Your task to perform on an android device: Open network settings Image 0: 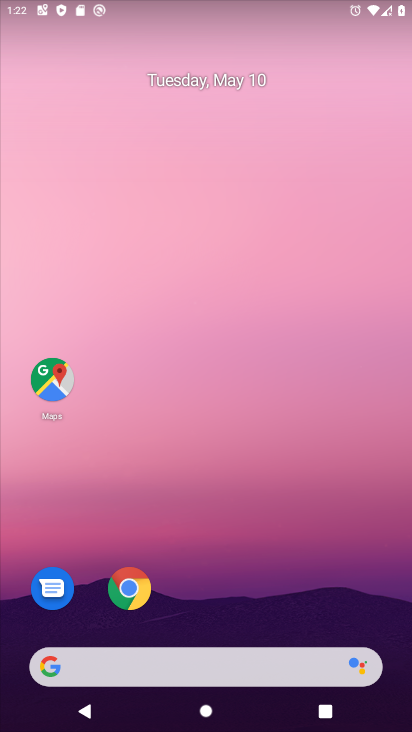
Step 0: drag from (275, 456) to (296, 161)
Your task to perform on an android device: Open network settings Image 1: 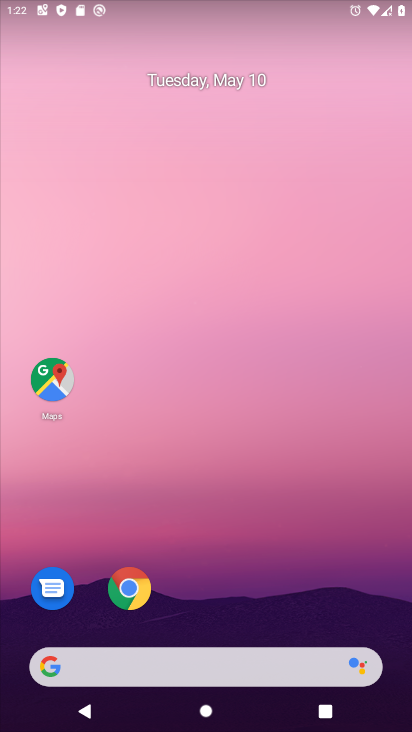
Step 1: drag from (260, 619) to (278, 204)
Your task to perform on an android device: Open network settings Image 2: 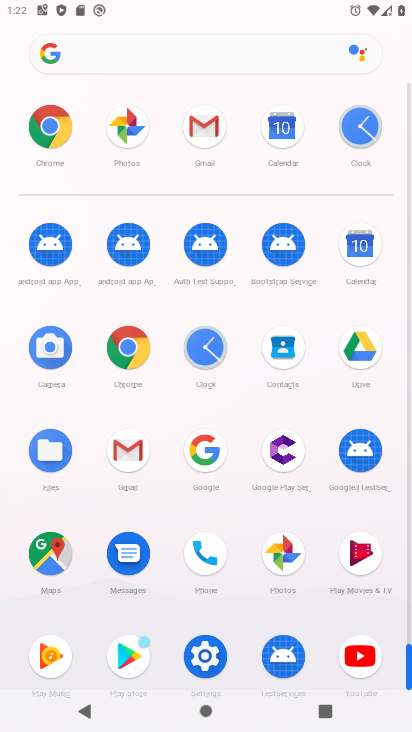
Step 2: click (200, 649)
Your task to perform on an android device: Open network settings Image 3: 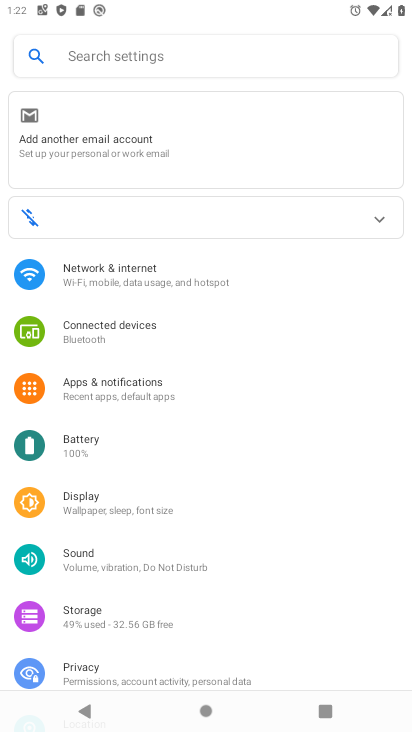
Step 3: click (148, 271)
Your task to perform on an android device: Open network settings Image 4: 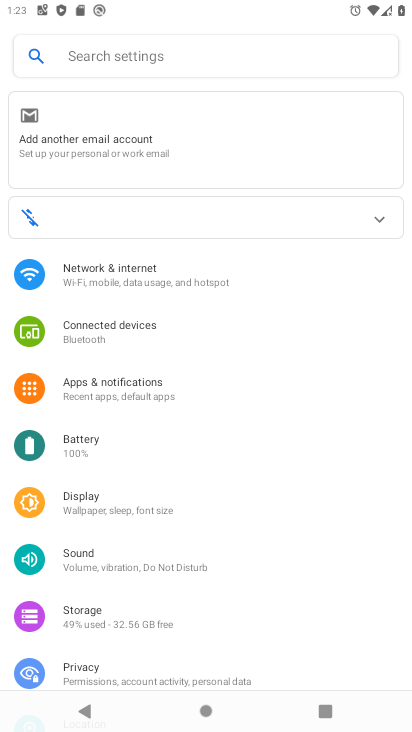
Step 4: click (167, 266)
Your task to perform on an android device: Open network settings Image 5: 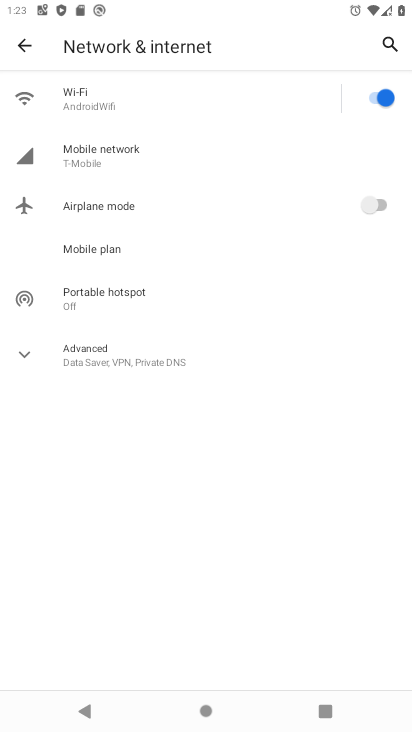
Step 5: task complete